Your task to perform on an android device: uninstall "Grab" Image 0: 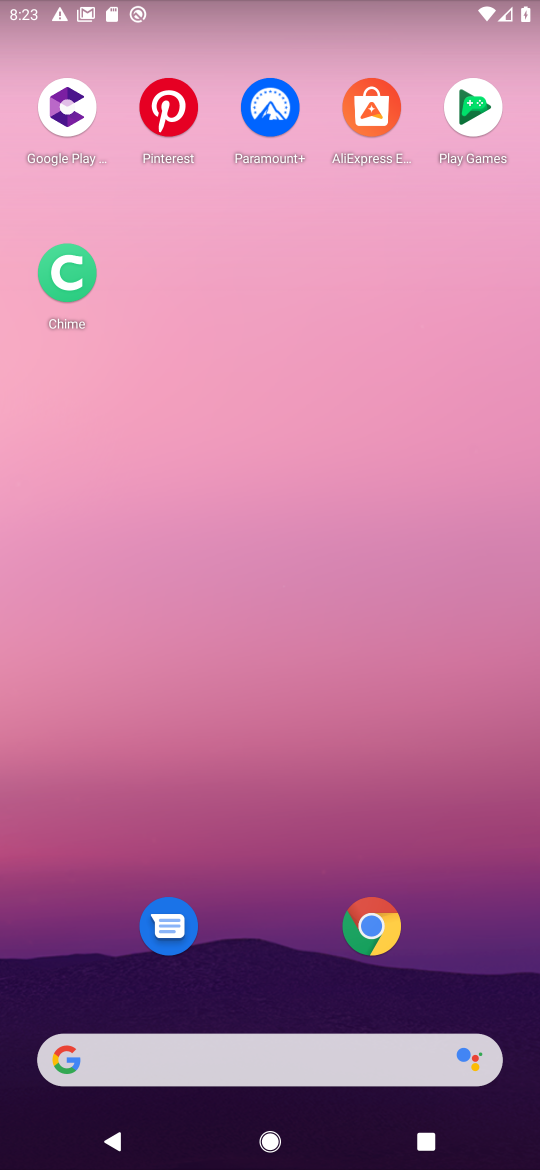
Step 0: drag from (229, 984) to (358, 20)
Your task to perform on an android device: uninstall "Grab" Image 1: 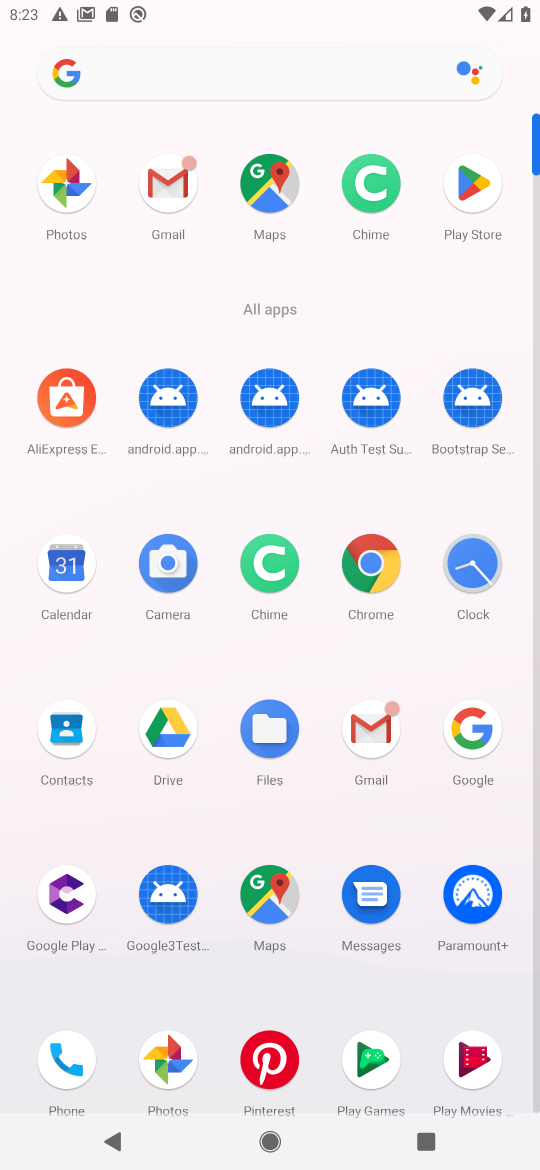
Step 1: click (483, 176)
Your task to perform on an android device: uninstall "Grab" Image 2: 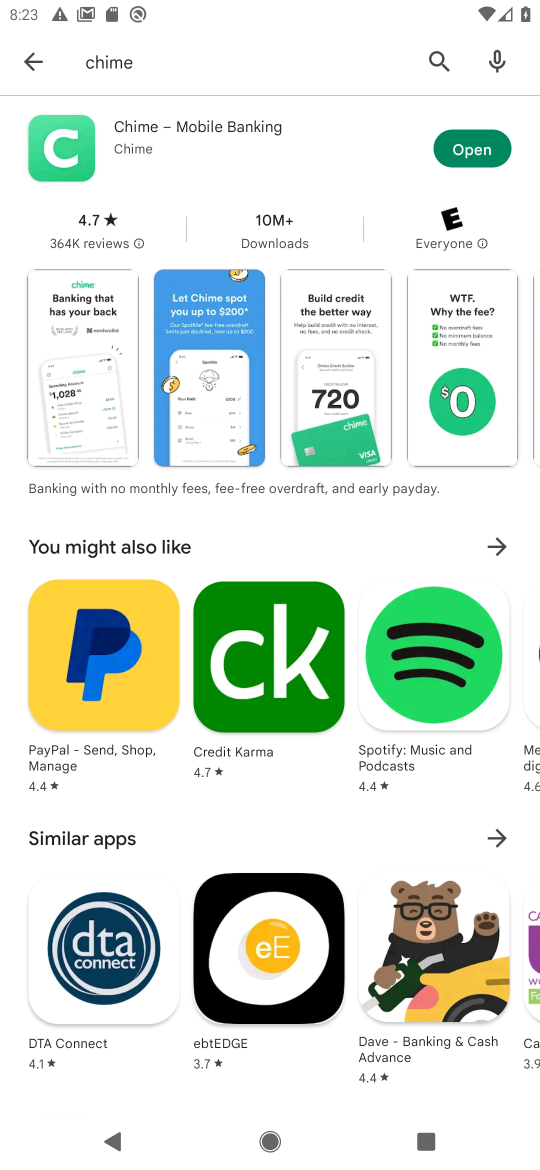
Step 2: click (440, 56)
Your task to perform on an android device: uninstall "Grab" Image 3: 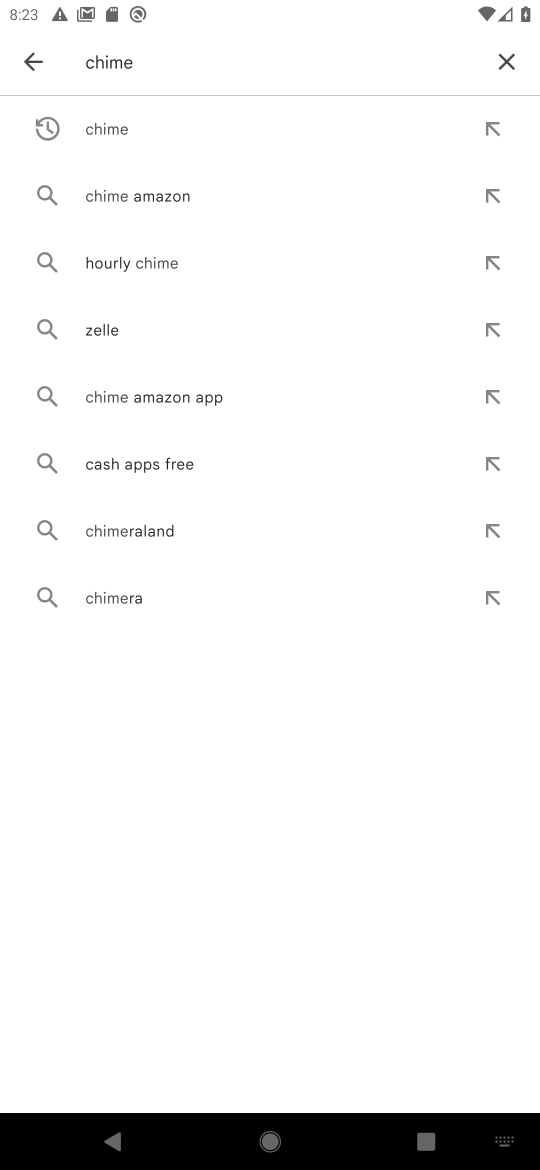
Step 3: click (513, 50)
Your task to perform on an android device: uninstall "Grab" Image 4: 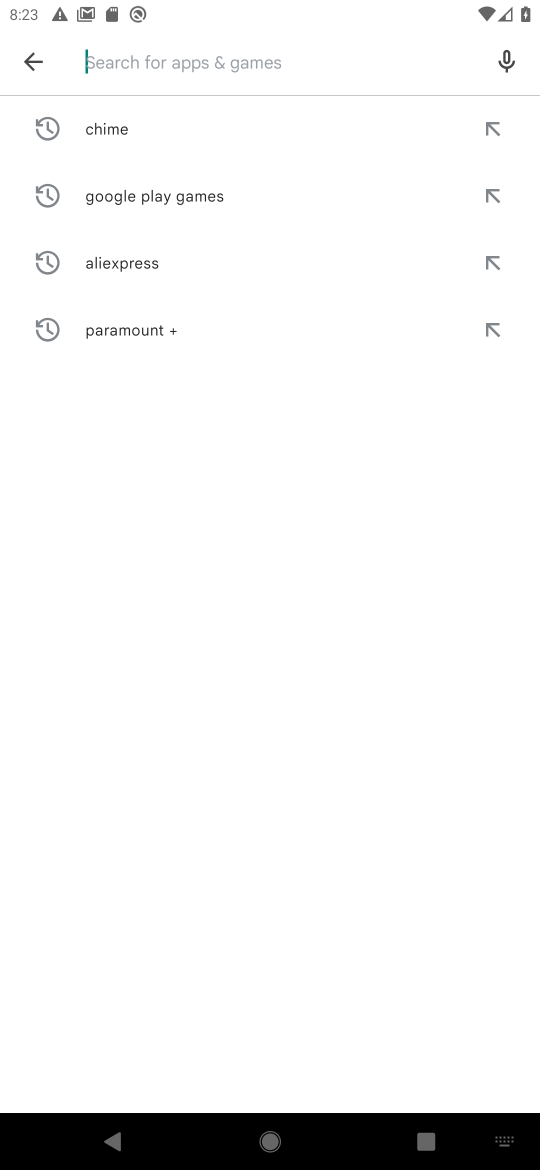
Step 4: type "grab"
Your task to perform on an android device: uninstall "Grab" Image 5: 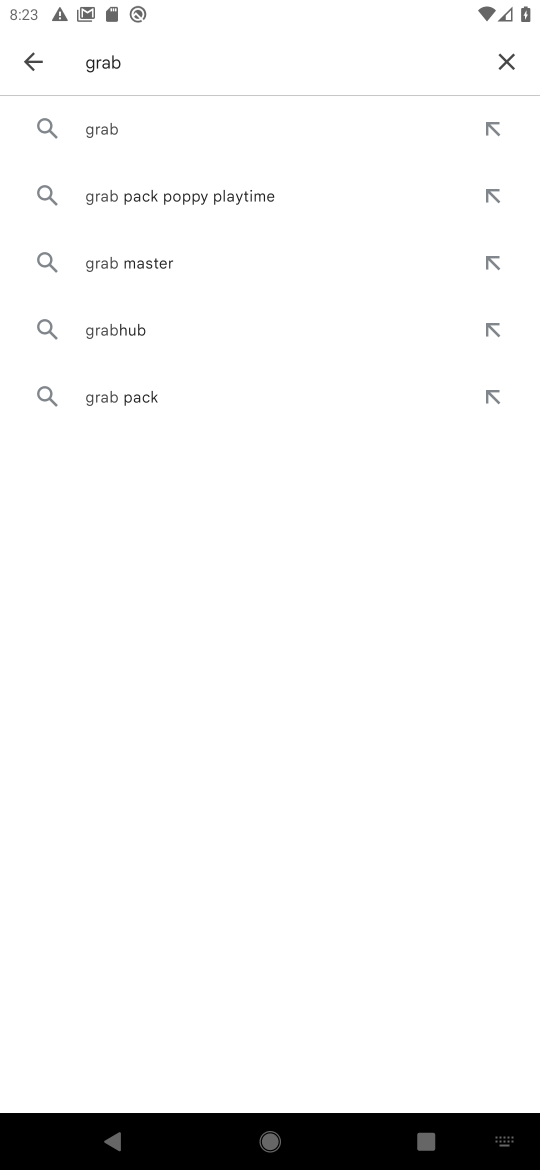
Step 5: click (93, 114)
Your task to perform on an android device: uninstall "Grab" Image 6: 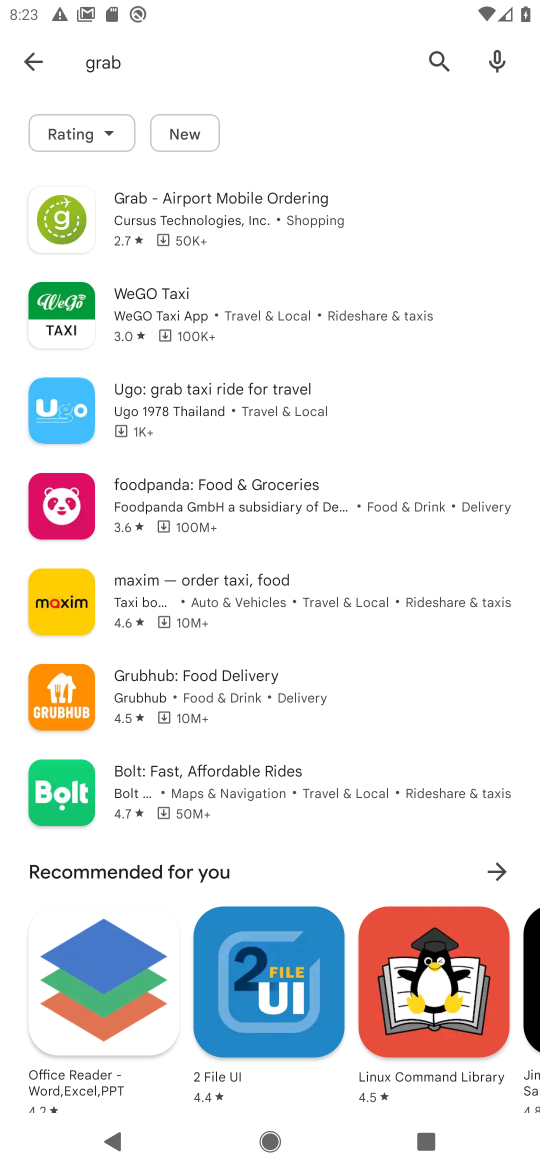
Step 6: click (151, 219)
Your task to perform on an android device: uninstall "Grab" Image 7: 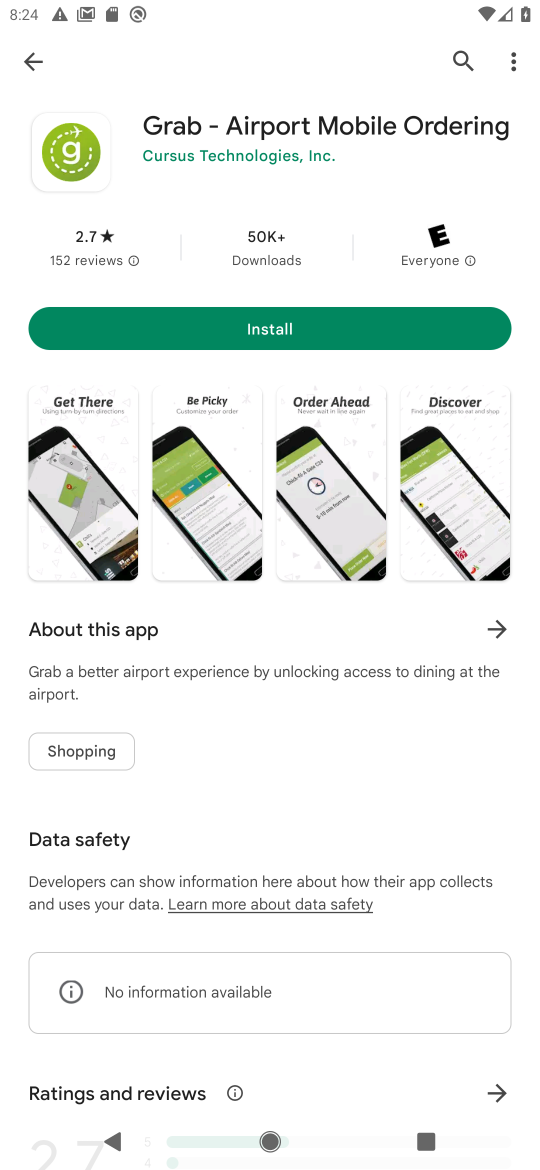
Step 7: task complete